Your task to perform on an android device: change the clock display to show seconds Image 0: 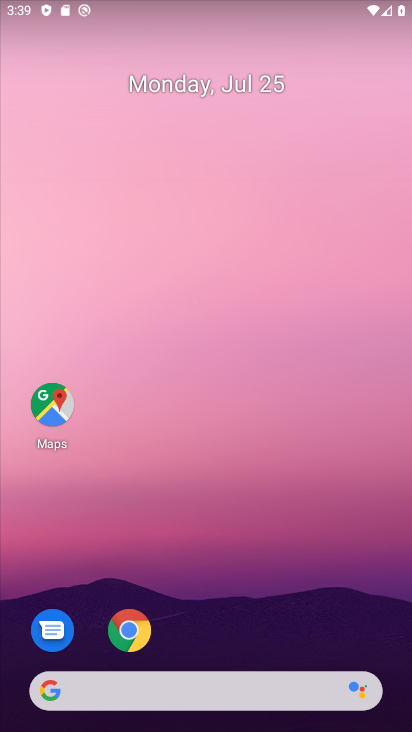
Step 0: drag from (233, 640) to (214, 271)
Your task to perform on an android device: change the clock display to show seconds Image 1: 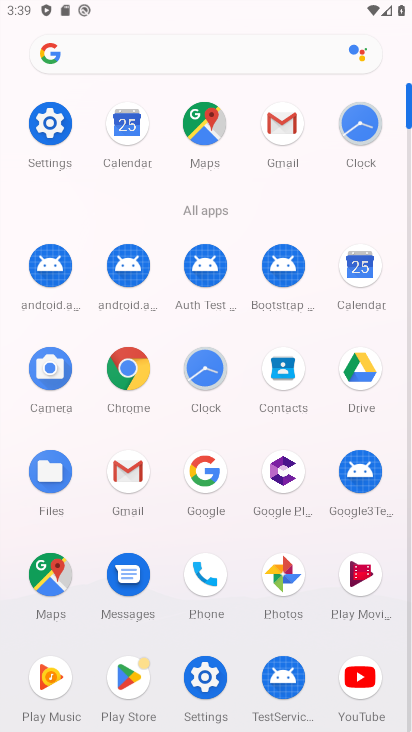
Step 1: click (360, 108)
Your task to perform on an android device: change the clock display to show seconds Image 2: 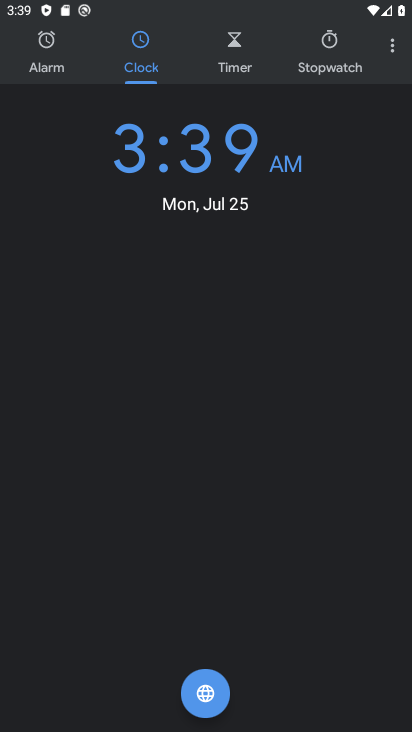
Step 2: click (386, 60)
Your task to perform on an android device: change the clock display to show seconds Image 3: 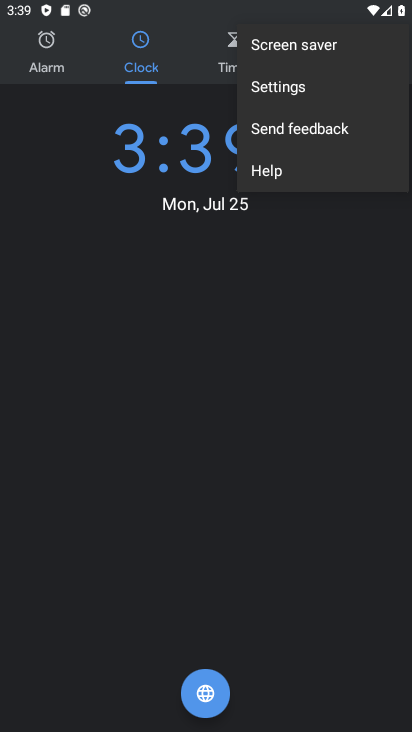
Step 3: click (342, 88)
Your task to perform on an android device: change the clock display to show seconds Image 4: 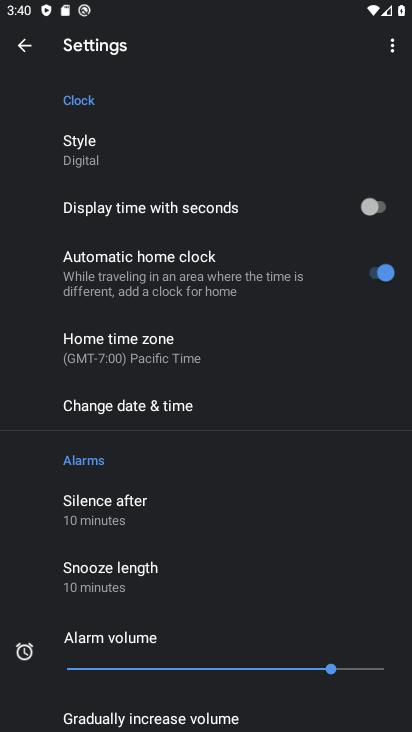
Step 4: click (379, 216)
Your task to perform on an android device: change the clock display to show seconds Image 5: 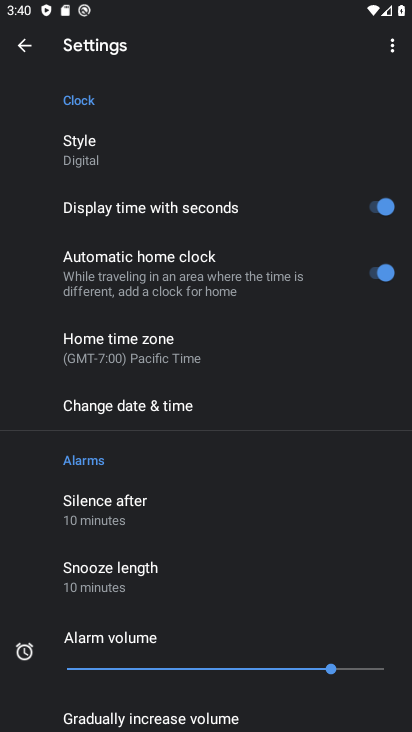
Step 5: task complete